Your task to perform on an android device: Search for "logitech g pro" on newegg.com, select the first entry, add it to the cart, then select checkout. Image 0: 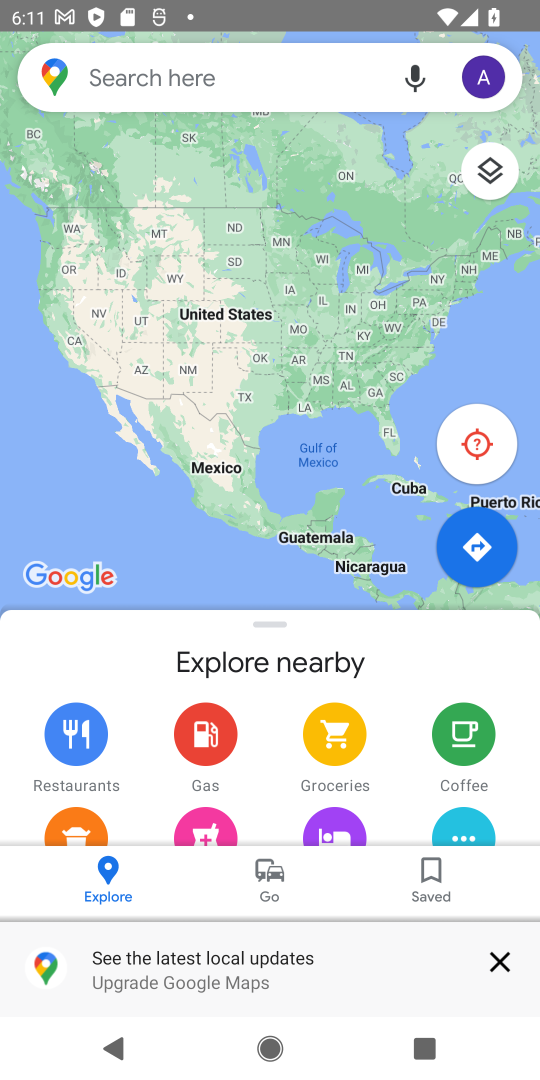
Step 0: press home button
Your task to perform on an android device: Search for "logitech g pro" on newegg.com, select the first entry, add it to the cart, then select checkout. Image 1: 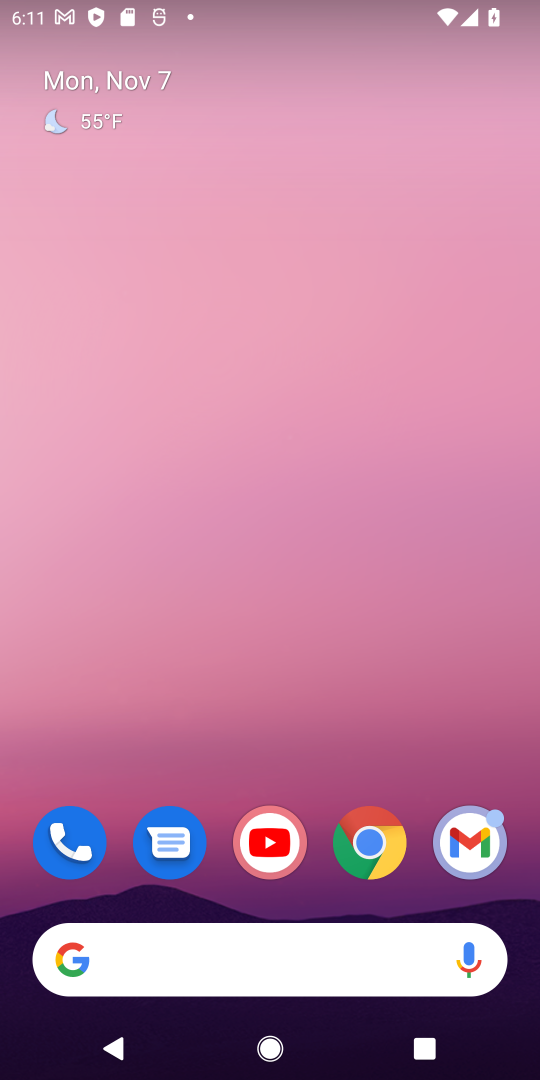
Step 1: click (363, 837)
Your task to perform on an android device: Search for "logitech g pro" on newegg.com, select the first entry, add it to the cart, then select checkout. Image 2: 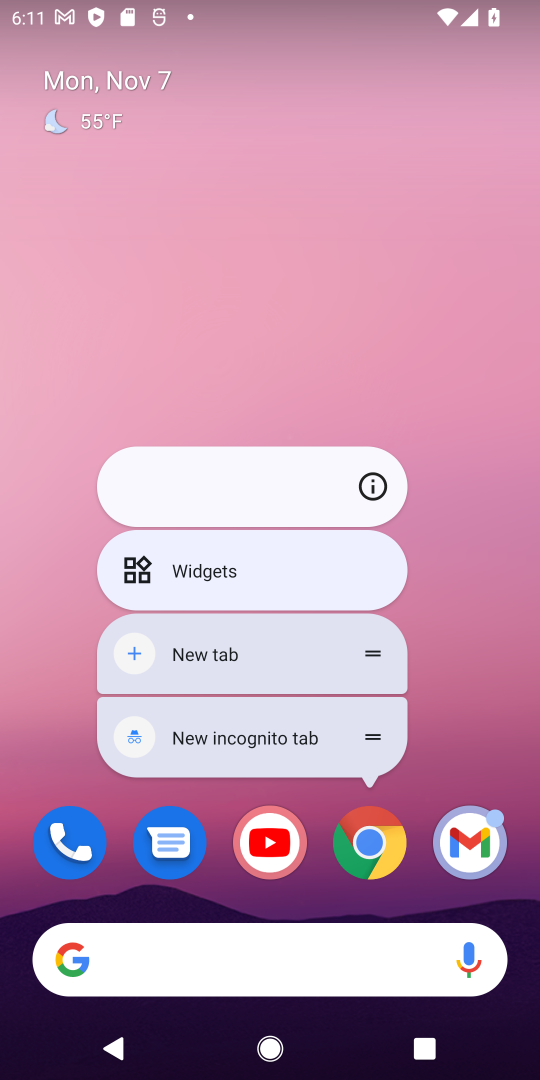
Step 2: click (370, 846)
Your task to perform on an android device: Search for "logitech g pro" on newegg.com, select the first entry, add it to the cart, then select checkout. Image 3: 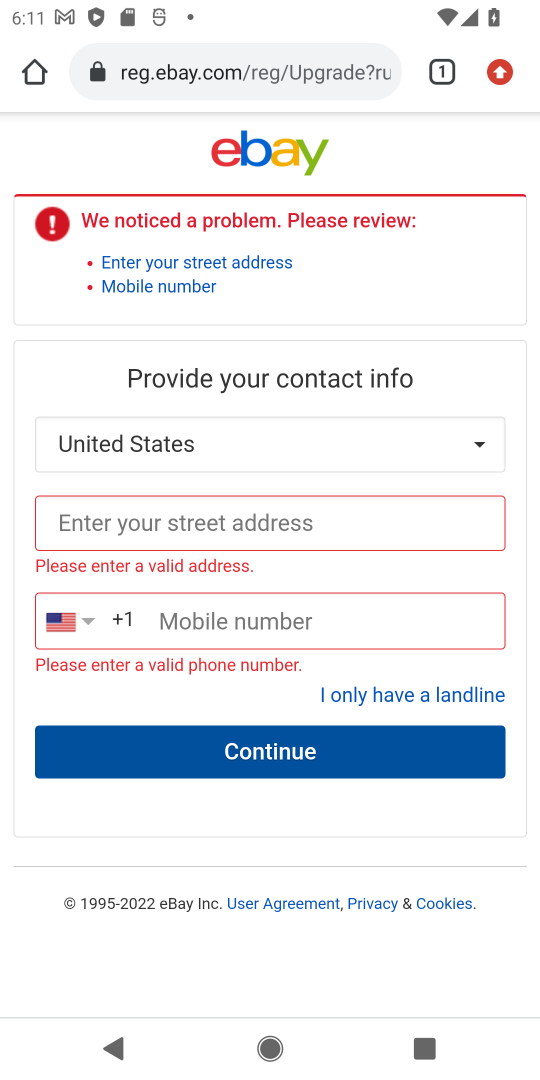
Step 3: click (339, 57)
Your task to perform on an android device: Search for "logitech g pro" on newegg.com, select the first entry, add it to the cart, then select checkout. Image 4: 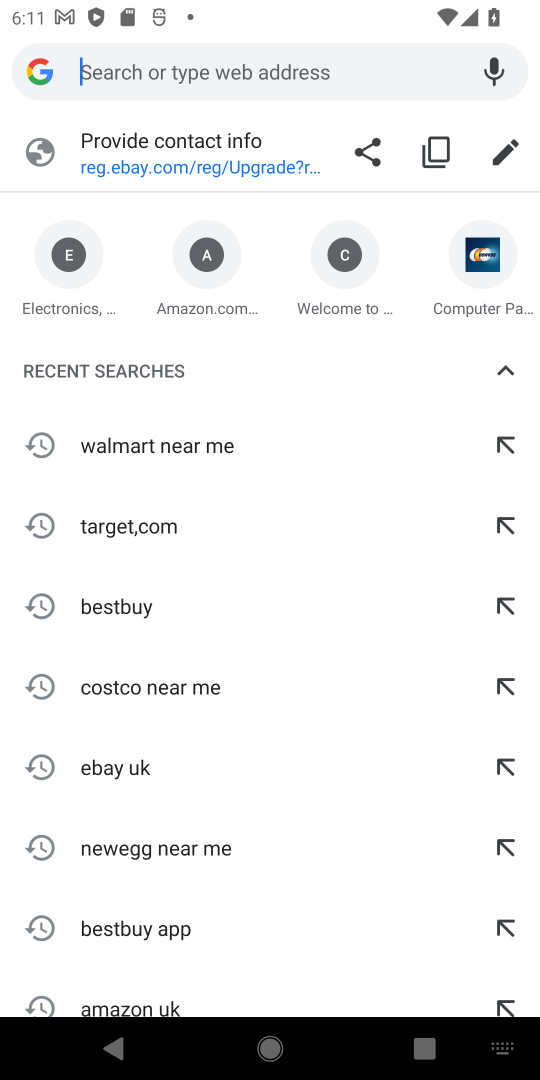
Step 4: type "newegg.com"
Your task to perform on an android device: Search for "logitech g pro" on newegg.com, select the first entry, add it to the cart, then select checkout. Image 5: 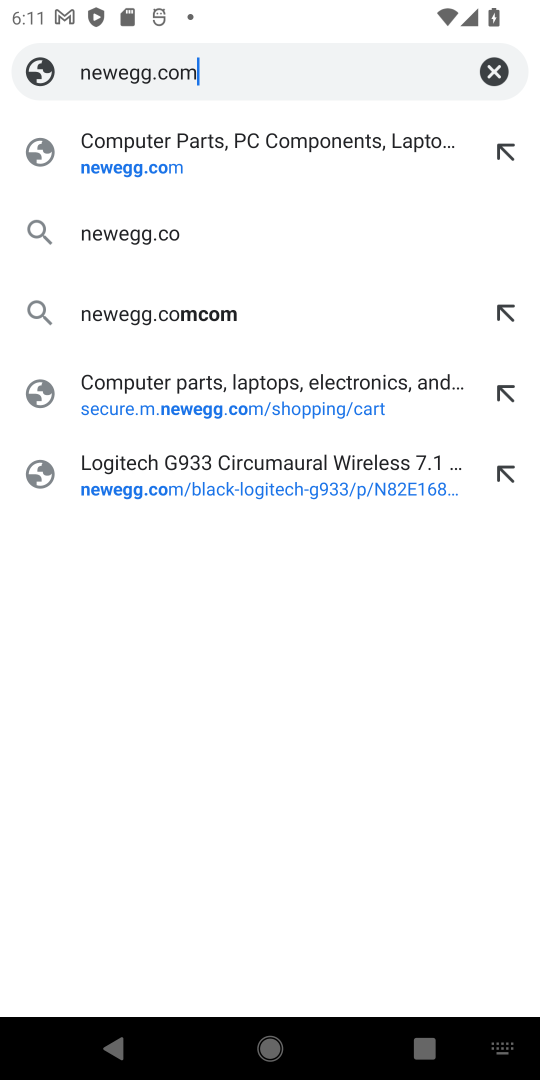
Step 5: press enter
Your task to perform on an android device: Search for "logitech g pro" on newegg.com, select the first entry, add it to the cart, then select checkout. Image 6: 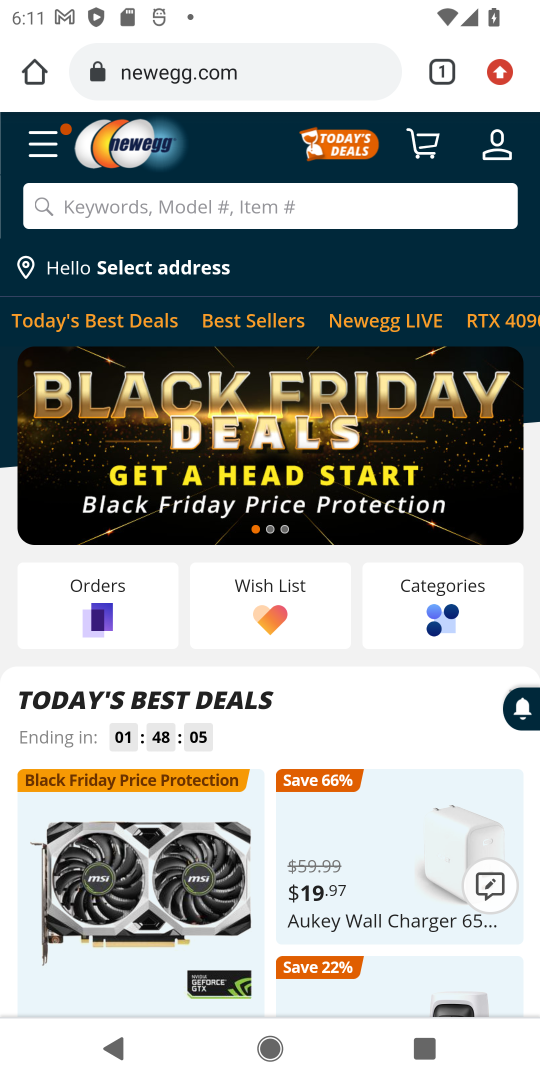
Step 6: click (328, 200)
Your task to perform on an android device: Search for "logitech g pro" on newegg.com, select the first entry, add it to the cart, then select checkout. Image 7: 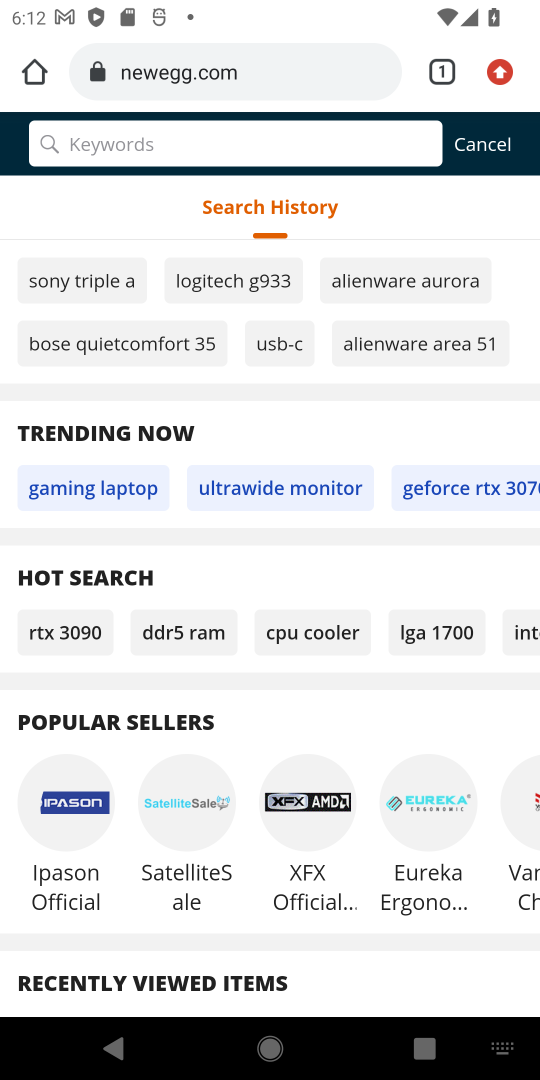
Step 7: type "logitech g pro"
Your task to perform on an android device: Search for "logitech g pro" on newegg.com, select the first entry, add it to the cart, then select checkout. Image 8: 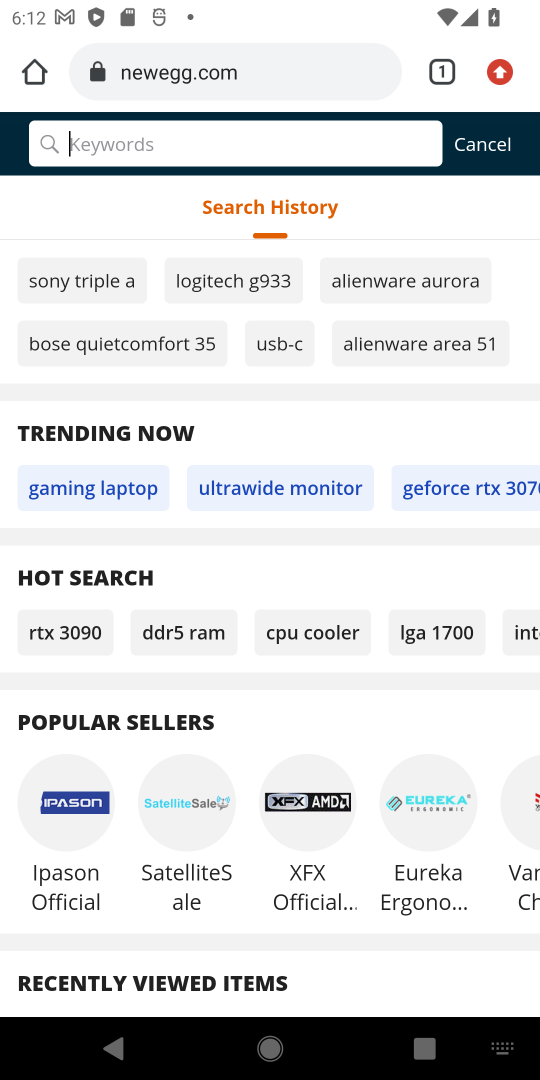
Step 8: press enter
Your task to perform on an android device: Search for "logitech g pro" on newegg.com, select the first entry, add it to the cart, then select checkout. Image 9: 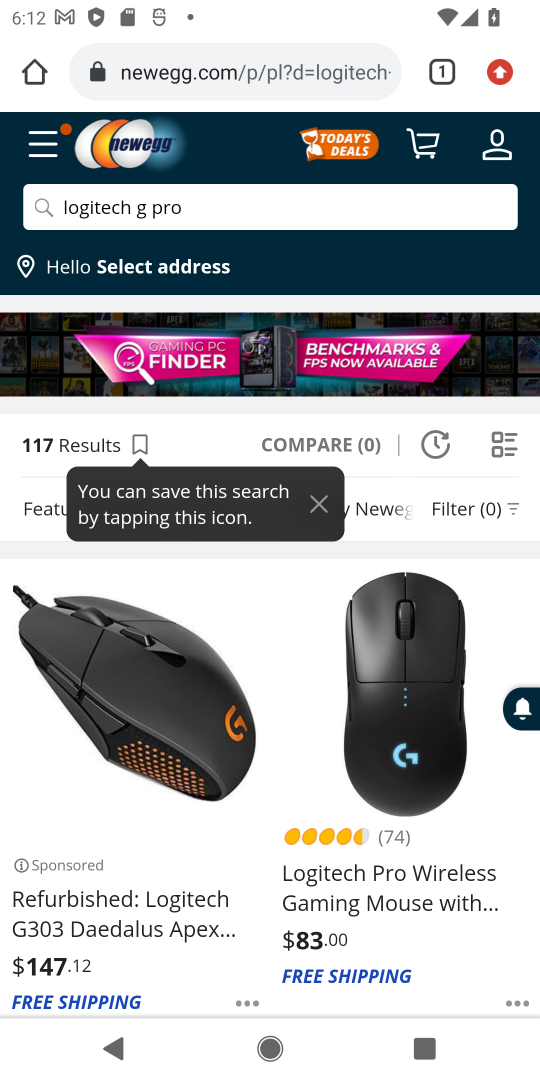
Step 9: task complete